Your task to perform on an android device: turn off notifications in google photos Image 0: 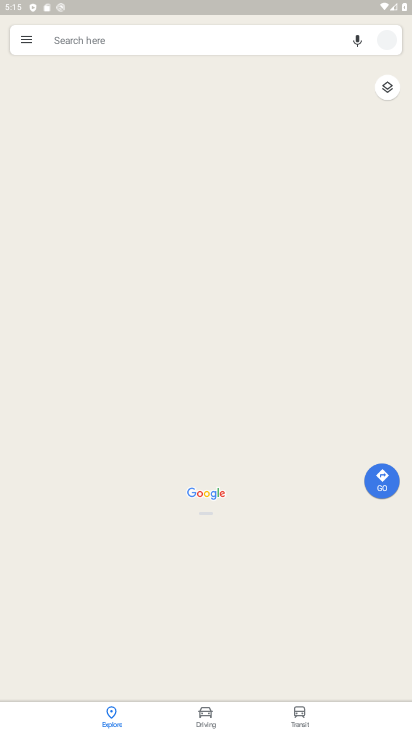
Step 0: press home button
Your task to perform on an android device: turn off notifications in google photos Image 1: 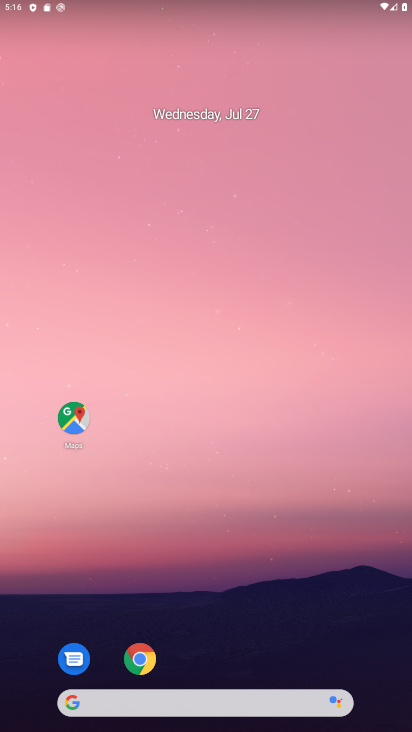
Step 1: drag from (311, 617) to (330, 135)
Your task to perform on an android device: turn off notifications in google photos Image 2: 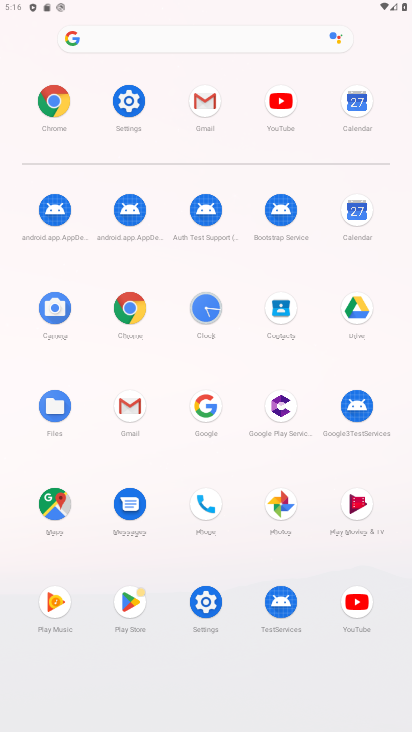
Step 2: click (282, 499)
Your task to perform on an android device: turn off notifications in google photos Image 3: 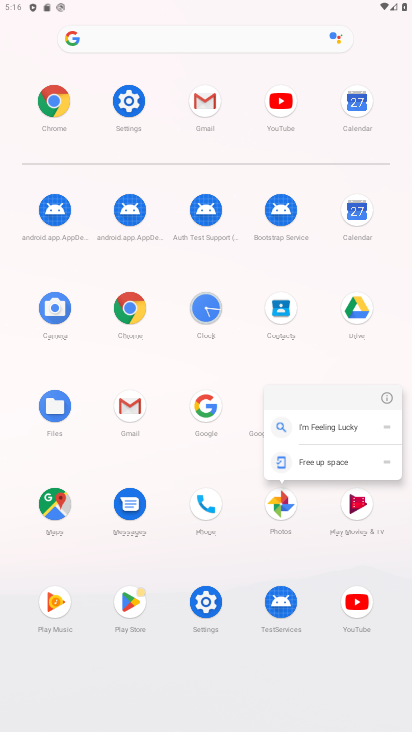
Step 3: click (387, 393)
Your task to perform on an android device: turn off notifications in google photos Image 4: 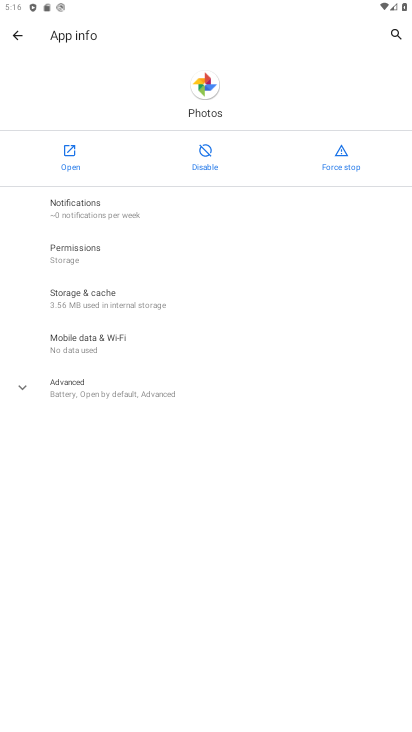
Step 4: click (74, 200)
Your task to perform on an android device: turn off notifications in google photos Image 5: 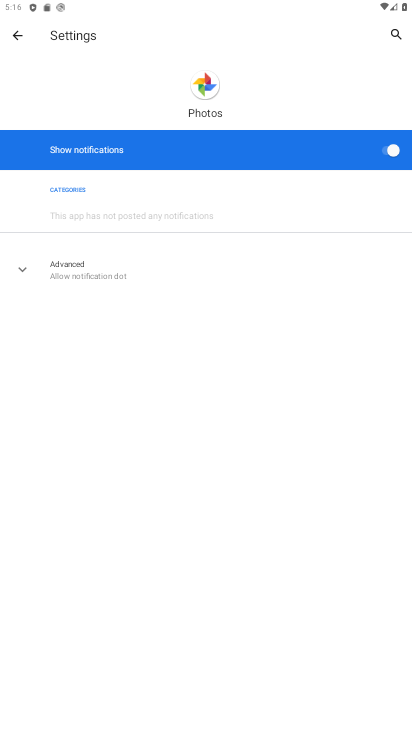
Step 5: click (297, 157)
Your task to perform on an android device: turn off notifications in google photos Image 6: 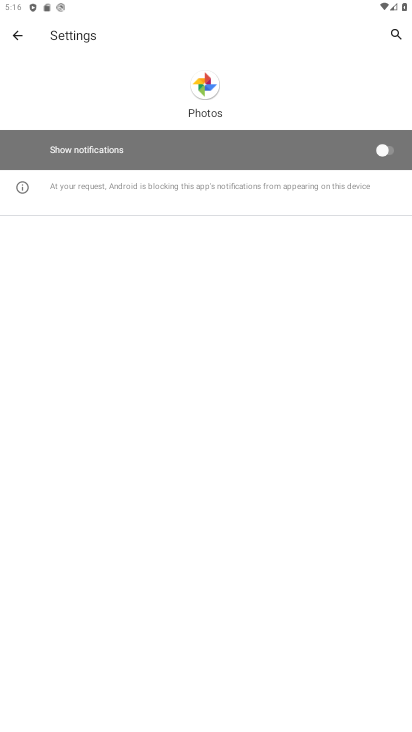
Step 6: task complete